Your task to perform on an android device: Open sound settings Image 0: 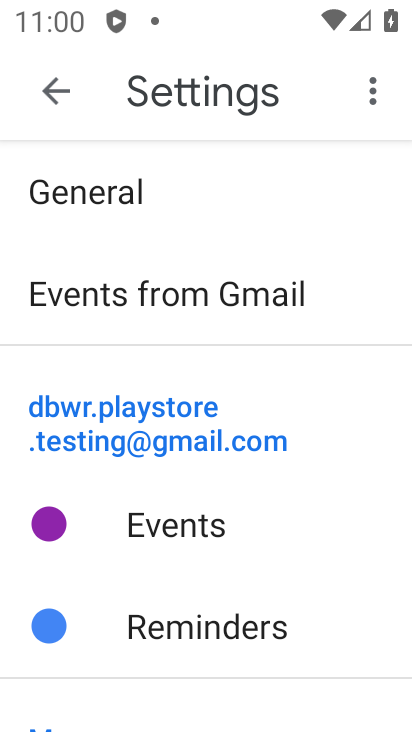
Step 0: press home button
Your task to perform on an android device: Open sound settings Image 1: 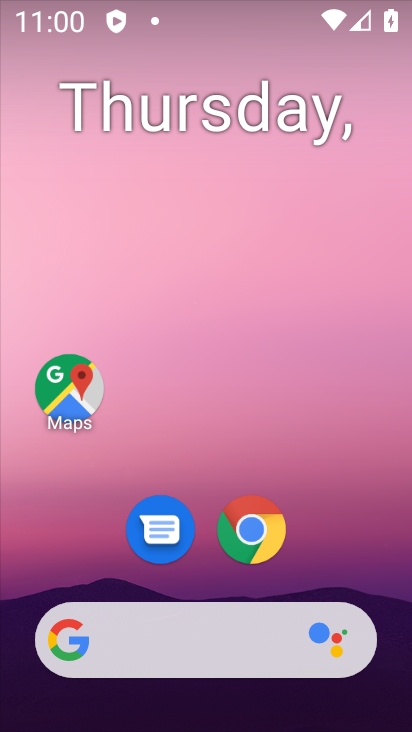
Step 1: drag from (261, 713) to (344, 16)
Your task to perform on an android device: Open sound settings Image 2: 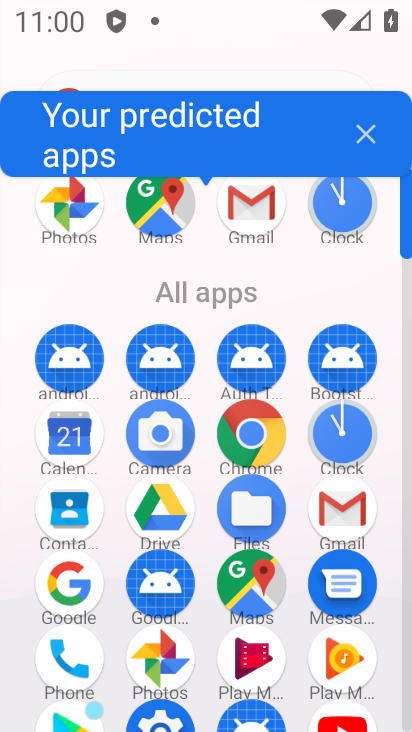
Step 2: drag from (294, 522) to (371, 21)
Your task to perform on an android device: Open sound settings Image 3: 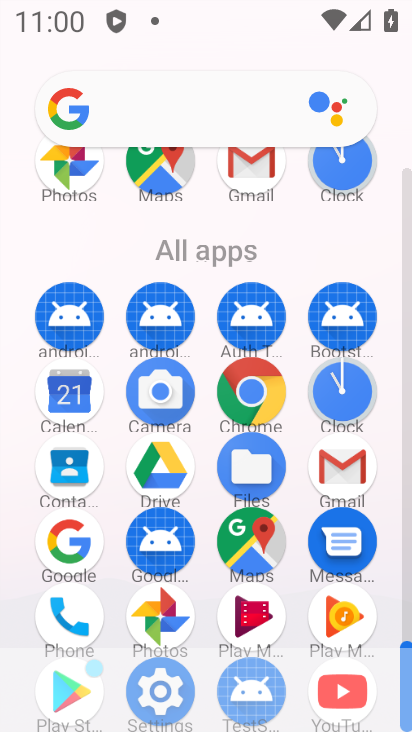
Step 3: drag from (395, 65) to (408, 9)
Your task to perform on an android device: Open sound settings Image 4: 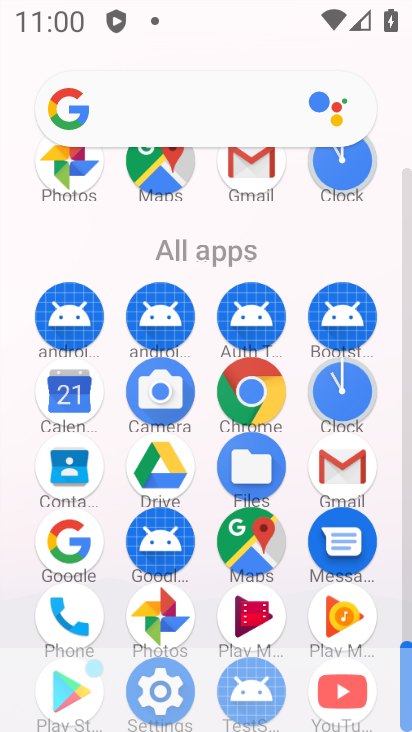
Step 4: click (169, 682)
Your task to perform on an android device: Open sound settings Image 5: 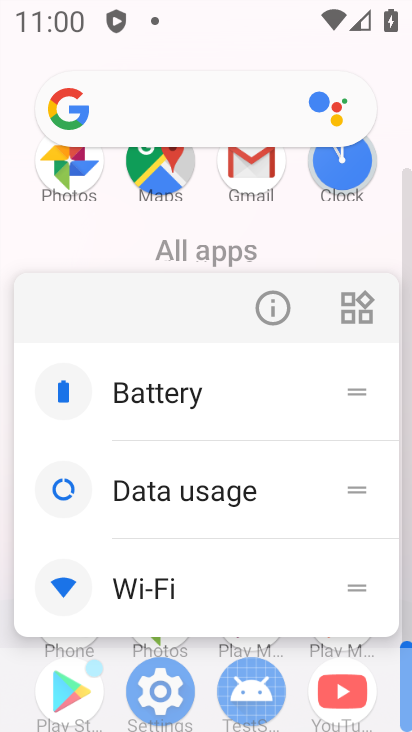
Step 5: click (175, 671)
Your task to perform on an android device: Open sound settings Image 6: 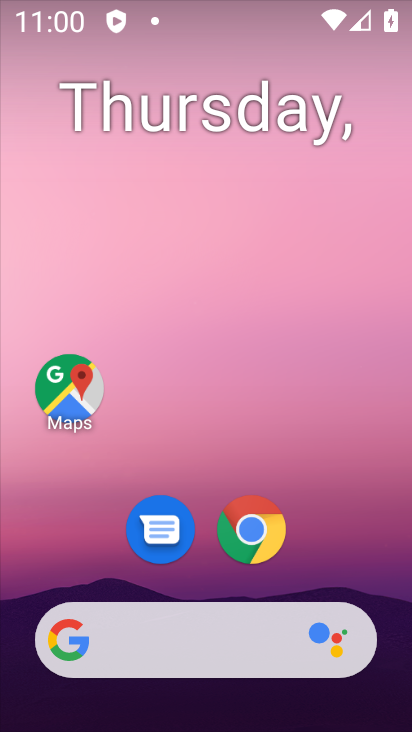
Step 6: drag from (269, 700) to (253, 36)
Your task to perform on an android device: Open sound settings Image 7: 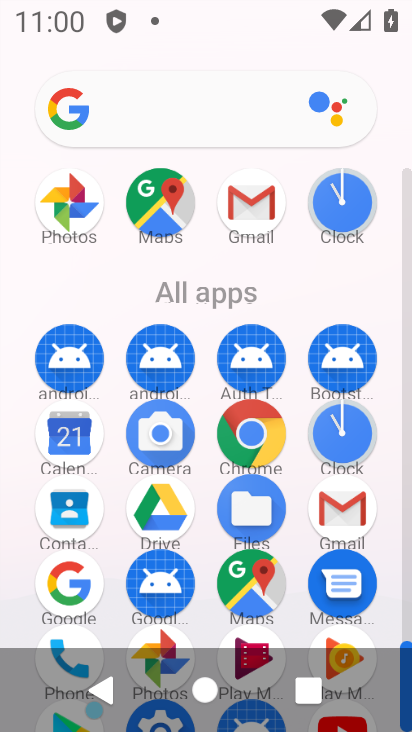
Step 7: drag from (264, 599) to (266, 59)
Your task to perform on an android device: Open sound settings Image 8: 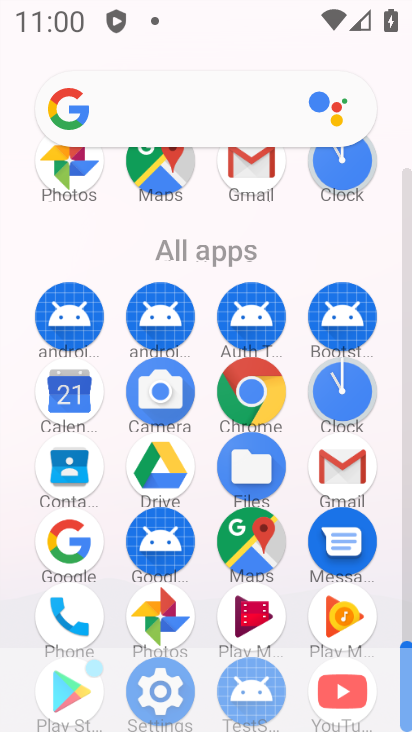
Step 8: click (187, 667)
Your task to perform on an android device: Open sound settings Image 9: 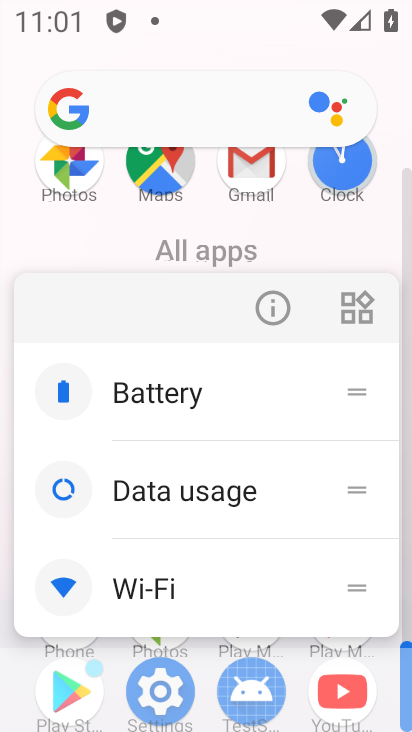
Step 9: click (168, 681)
Your task to perform on an android device: Open sound settings Image 10: 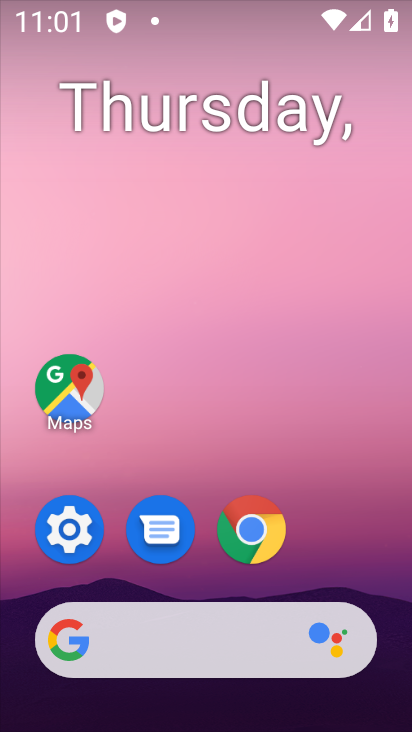
Step 10: click (91, 546)
Your task to perform on an android device: Open sound settings Image 11: 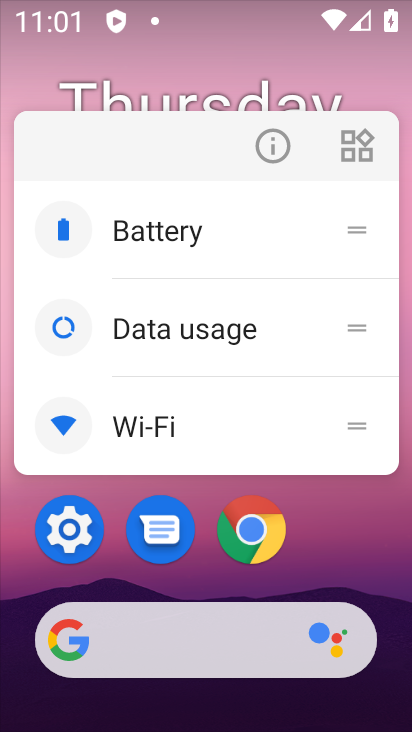
Step 11: click (91, 546)
Your task to perform on an android device: Open sound settings Image 12: 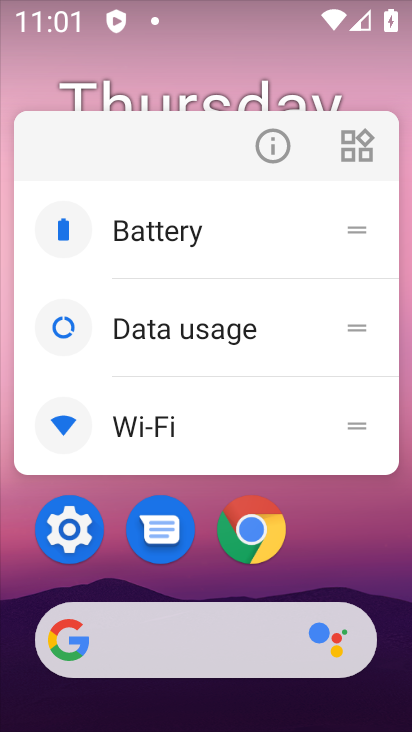
Step 12: click (77, 534)
Your task to perform on an android device: Open sound settings Image 13: 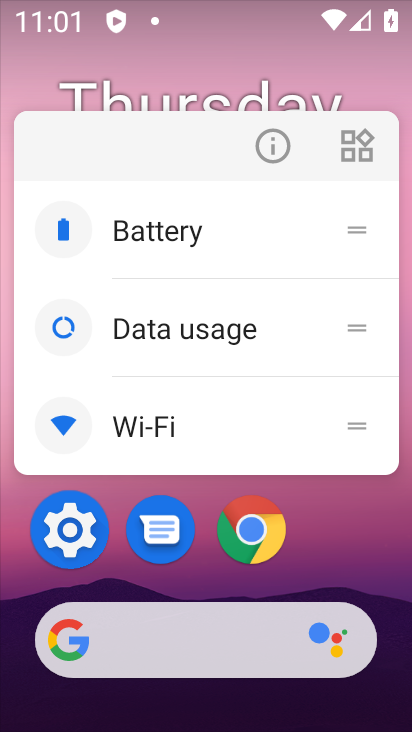
Step 13: click (77, 534)
Your task to perform on an android device: Open sound settings Image 14: 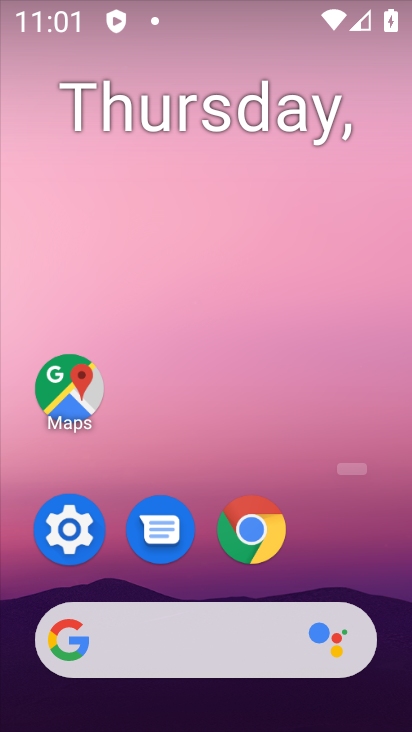
Step 14: click (77, 534)
Your task to perform on an android device: Open sound settings Image 15: 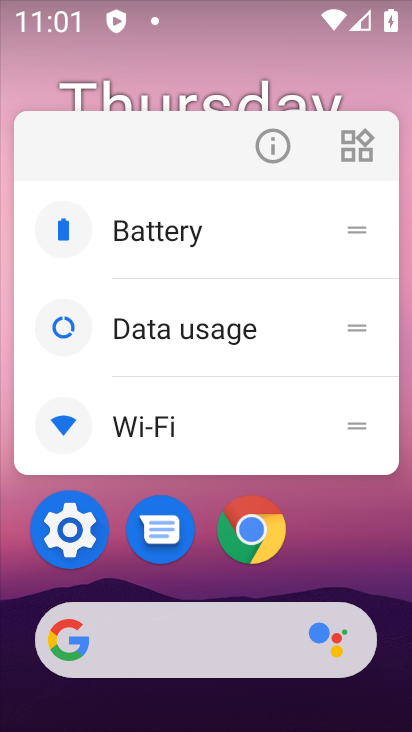
Step 15: click (77, 534)
Your task to perform on an android device: Open sound settings Image 16: 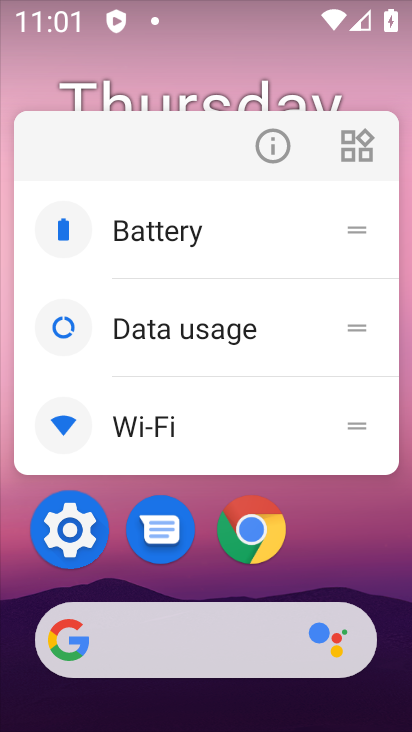
Step 16: click (77, 534)
Your task to perform on an android device: Open sound settings Image 17: 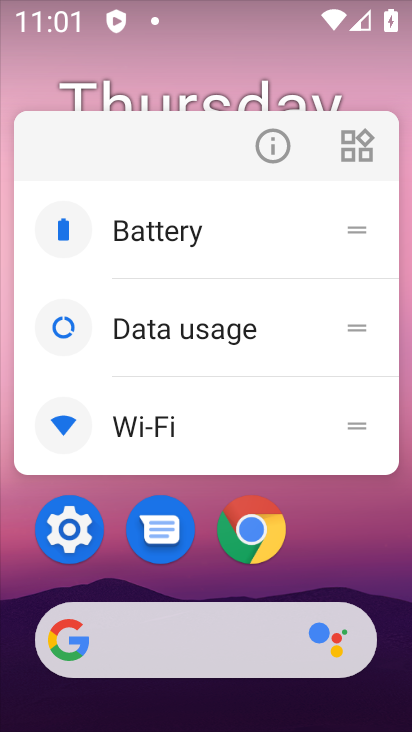
Step 17: click (78, 534)
Your task to perform on an android device: Open sound settings Image 18: 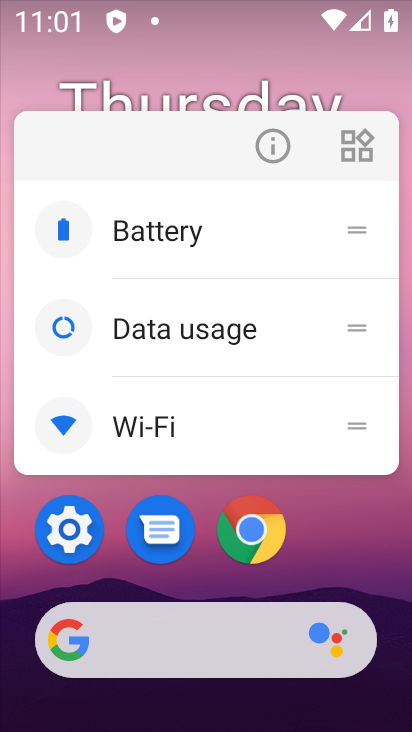
Step 18: click (75, 531)
Your task to perform on an android device: Open sound settings Image 19: 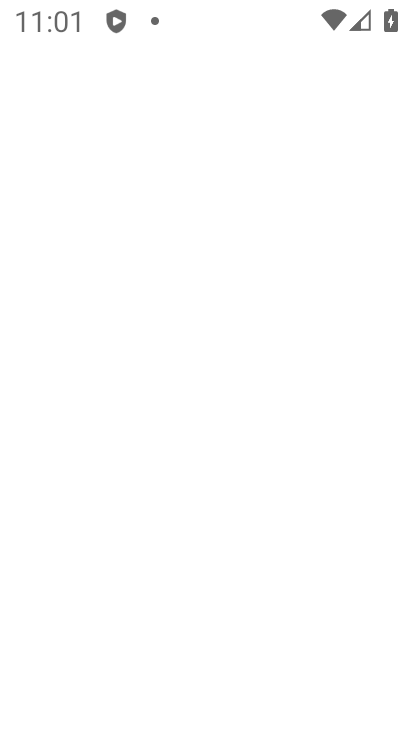
Step 19: click (75, 531)
Your task to perform on an android device: Open sound settings Image 20: 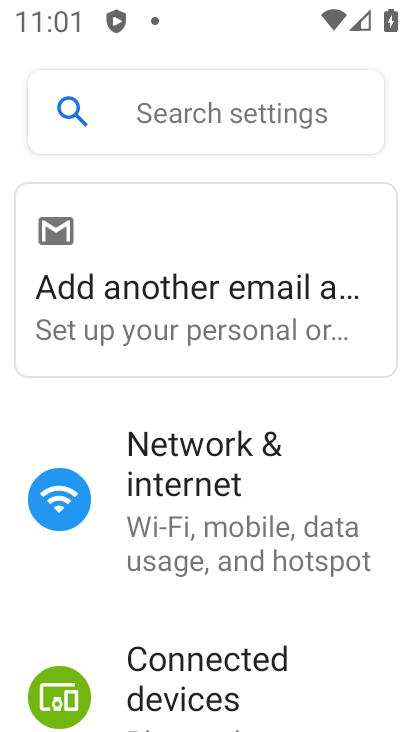
Step 20: drag from (306, 665) to (209, 20)
Your task to perform on an android device: Open sound settings Image 21: 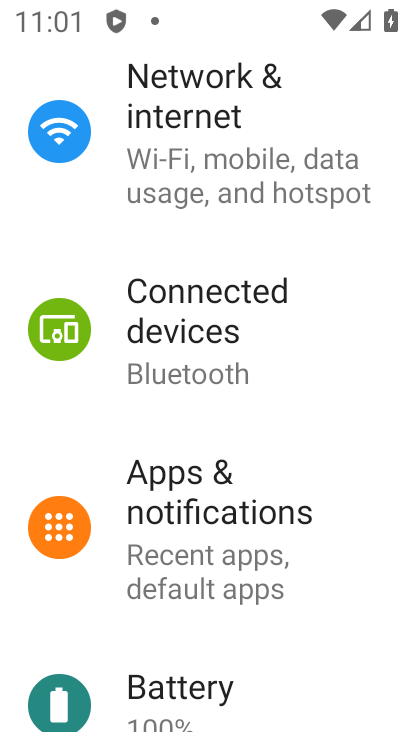
Step 21: drag from (243, 607) to (155, 18)
Your task to perform on an android device: Open sound settings Image 22: 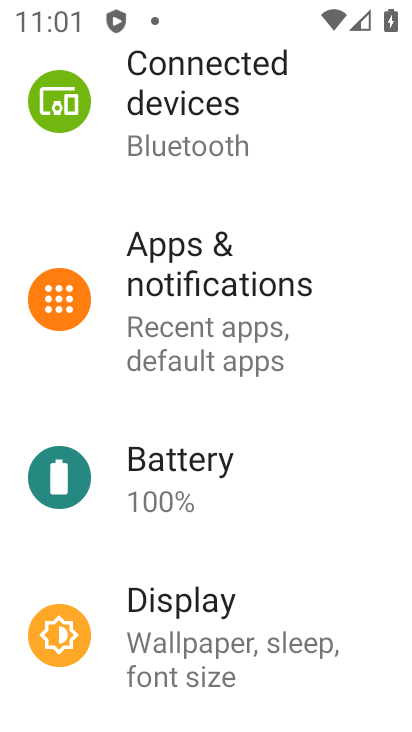
Step 22: drag from (303, 699) to (292, 7)
Your task to perform on an android device: Open sound settings Image 23: 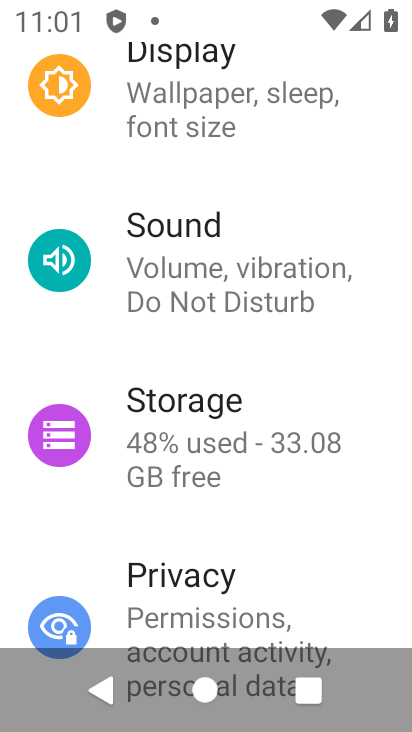
Step 23: click (301, 251)
Your task to perform on an android device: Open sound settings Image 24: 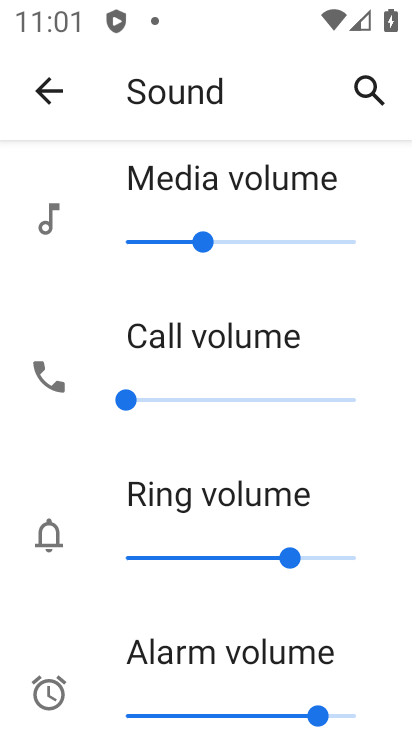
Step 24: task complete